Your task to perform on an android device: Is it going to rain tomorrow? Image 0: 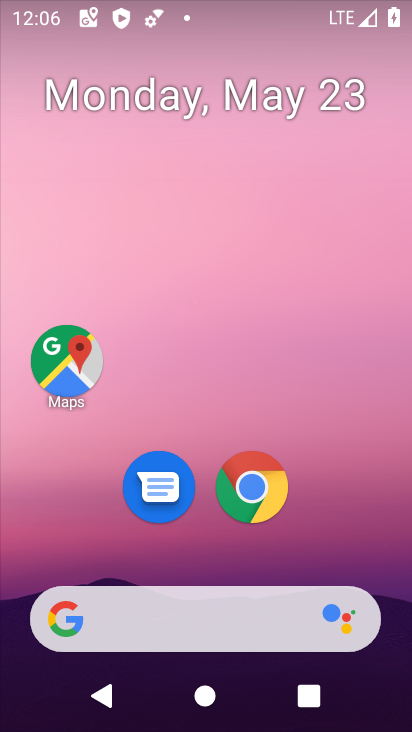
Step 0: click (174, 621)
Your task to perform on an android device: Is it going to rain tomorrow? Image 1: 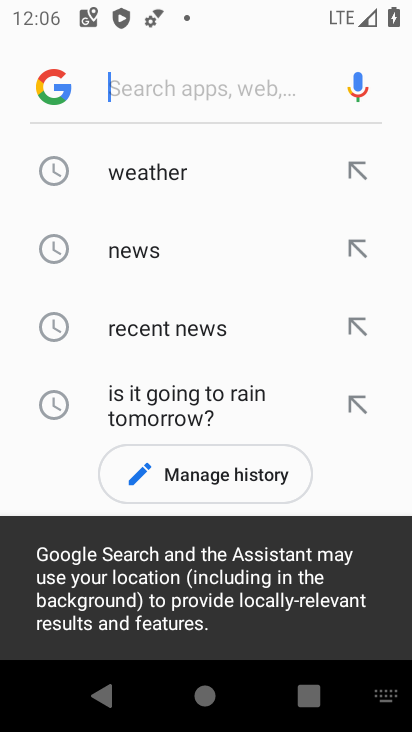
Step 1: click (140, 171)
Your task to perform on an android device: Is it going to rain tomorrow? Image 2: 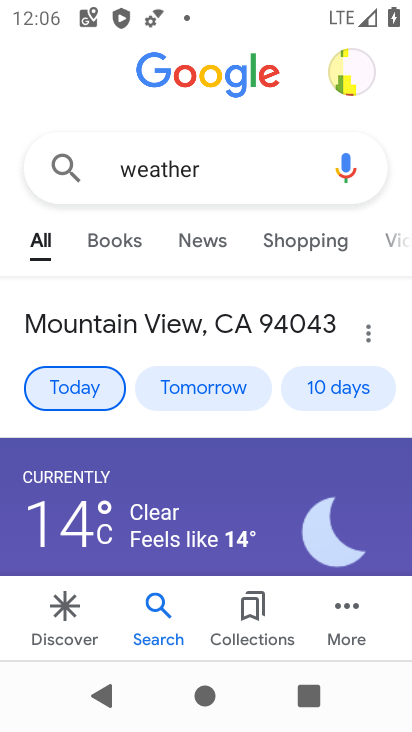
Step 2: click (68, 376)
Your task to perform on an android device: Is it going to rain tomorrow? Image 3: 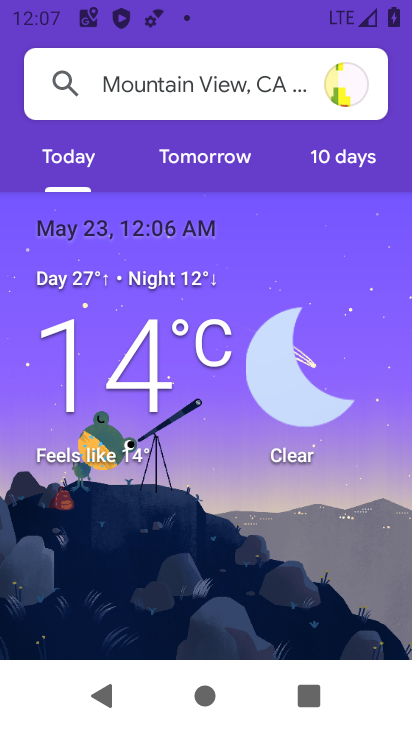
Step 3: click (228, 164)
Your task to perform on an android device: Is it going to rain tomorrow? Image 4: 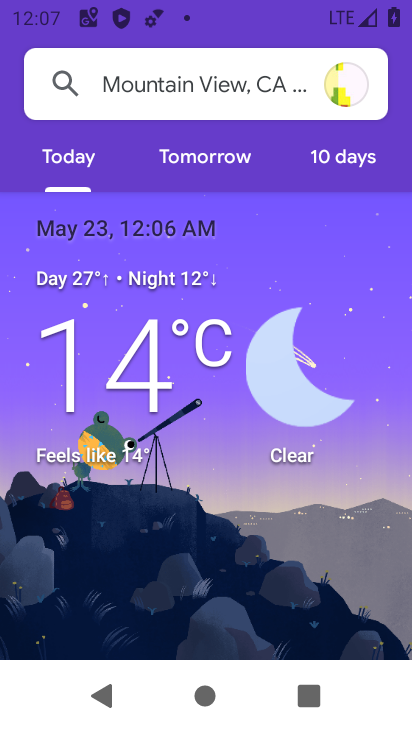
Step 4: click (202, 152)
Your task to perform on an android device: Is it going to rain tomorrow? Image 5: 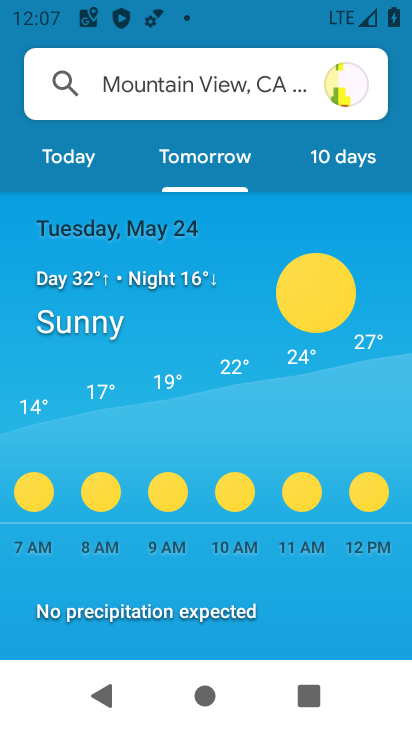
Step 5: task complete